Your task to perform on an android device: turn on the 24-hour format for clock Image 0: 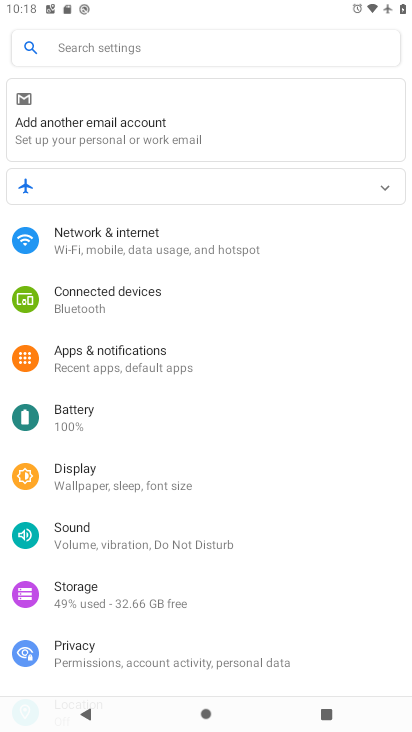
Step 0: drag from (194, 587) to (165, 237)
Your task to perform on an android device: turn on the 24-hour format for clock Image 1: 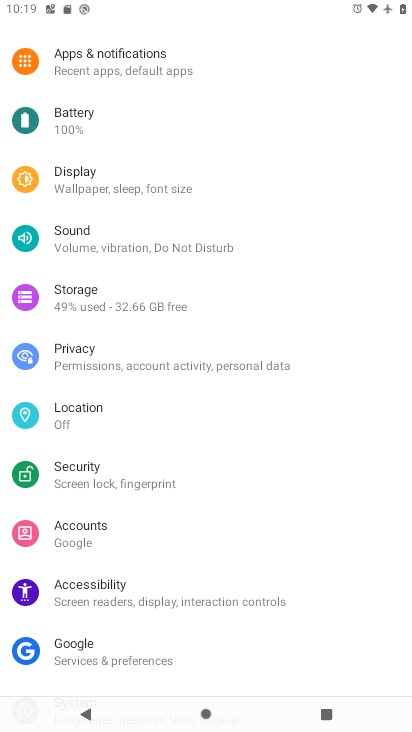
Step 1: drag from (145, 583) to (167, 225)
Your task to perform on an android device: turn on the 24-hour format for clock Image 2: 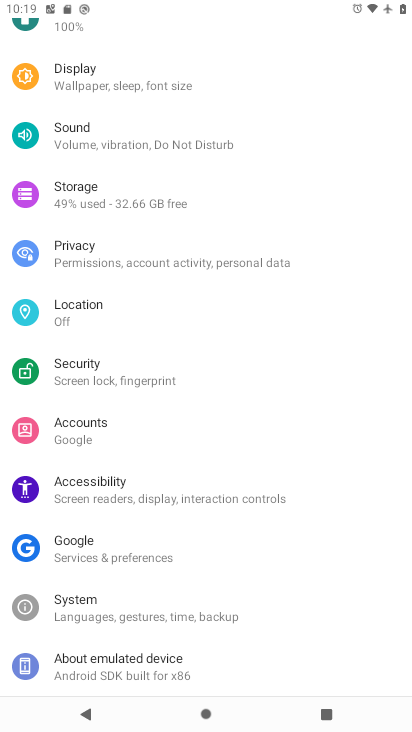
Step 2: press home button
Your task to perform on an android device: turn on the 24-hour format for clock Image 3: 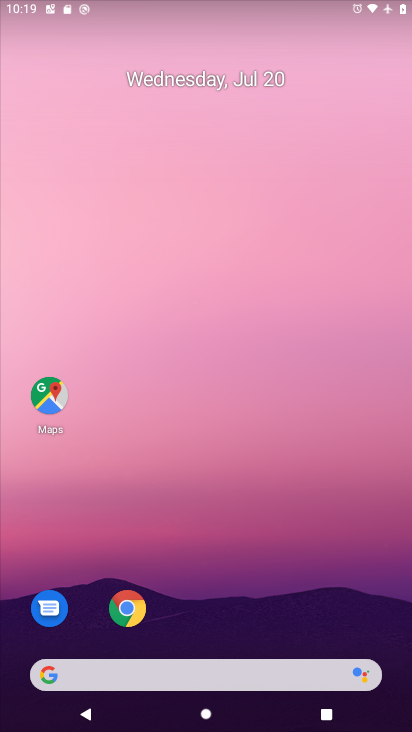
Step 3: drag from (250, 608) to (244, 172)
Your task to perform on an android device: turn on the 24-hour format for clock Image 4: 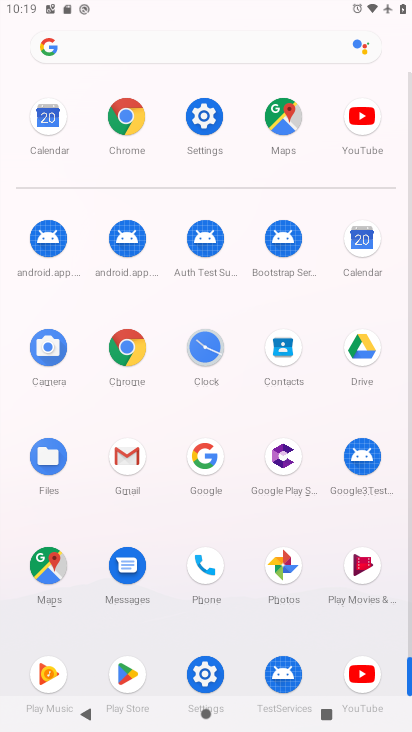
Step 4: click (202, 348)
Your task to perform on an android device: turn on the 24-hour format for clock Image 5: 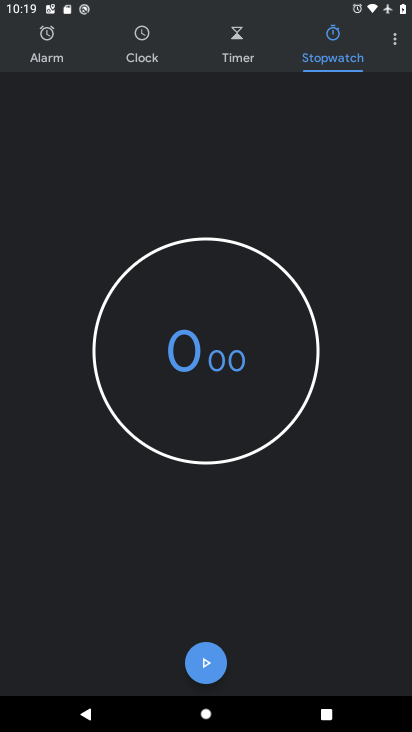
Step 5: click (393, 37)
Your task to perform on an android device: turn on the 24-hour format for clock Image 6: 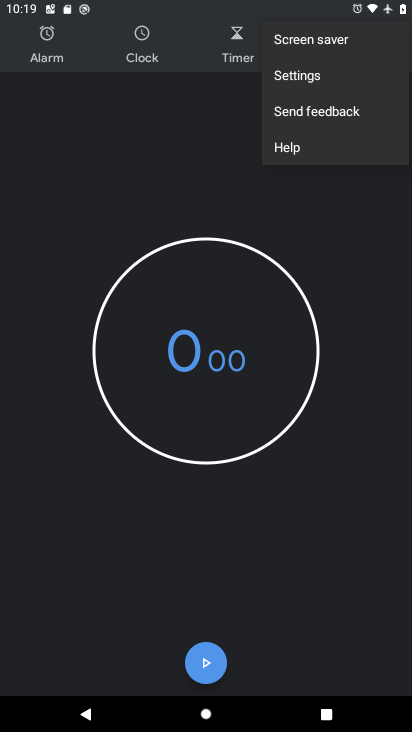
Step 6: click (320, 77)
Your task to perform on an android device: turn on the 24-hour format for clock Image 7: 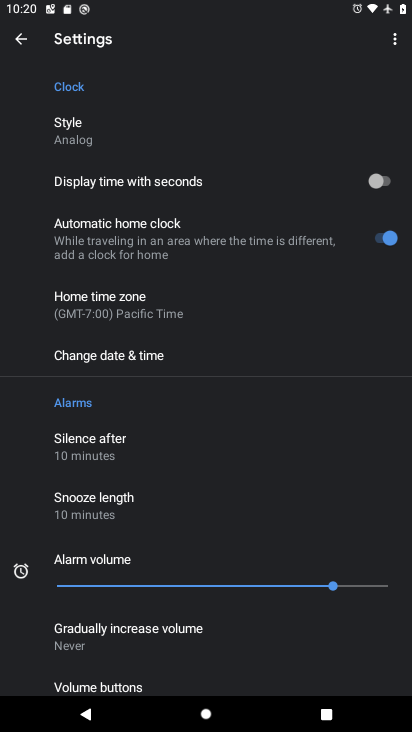
Step 7: click (154, 356)
Your task to perform on an android device: turn on the 24-hour format for clock Image 8: 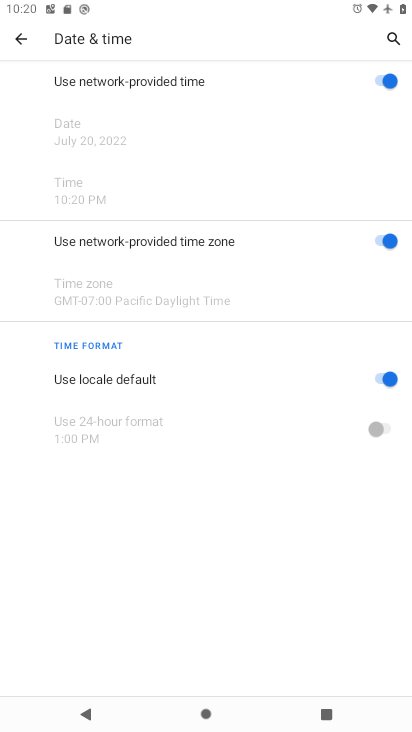
Step 8: click (32, 40)
Your task to perform on an android device: turn on the 24-hour format for clock Image 9: 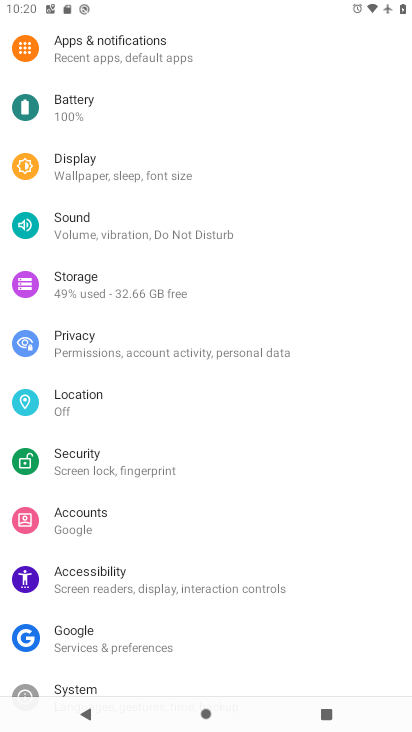
Step 9: press home button
Your task to perform on an android device: turn on the 24-hour format for clock Image 10: 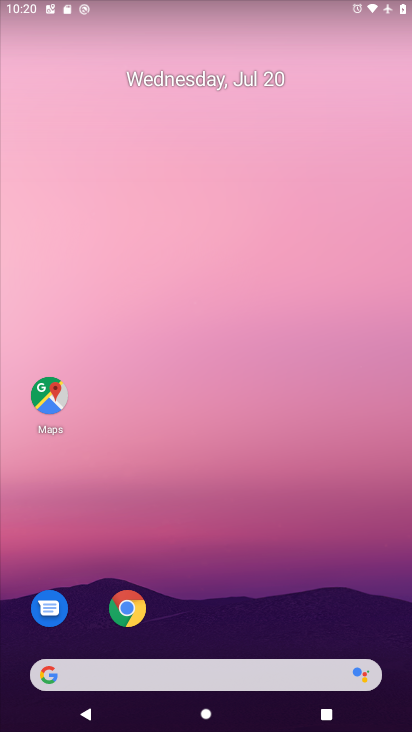
Step 10: drag from (217, 617) to (200, 95)
Your task to perform on an android device: turn on the 24-hour format for clock Image 11: 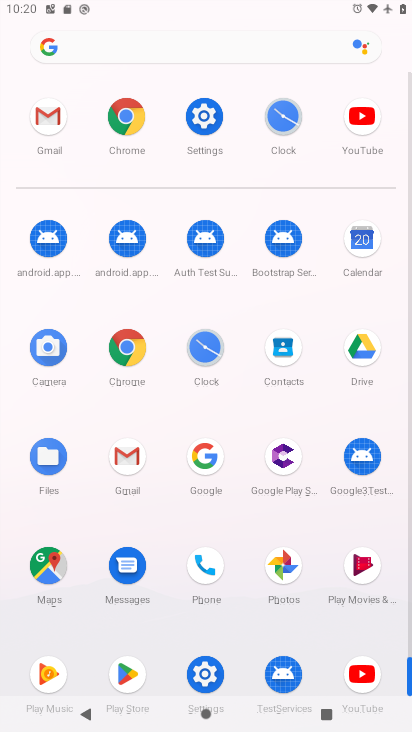
Step 11: click (214, 341)
Your task to perform on an android device: turn on the 24-hour format for clock Image 12: 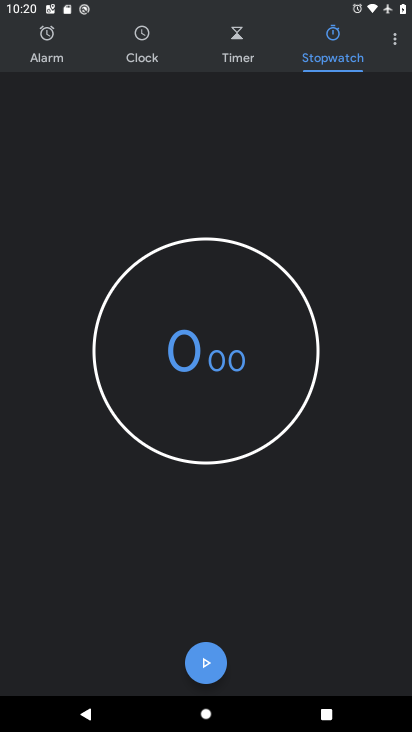
Step 12: click (396, 32)
Your task to perform on an android device: turn on the 24-hour format for clock Image 13: 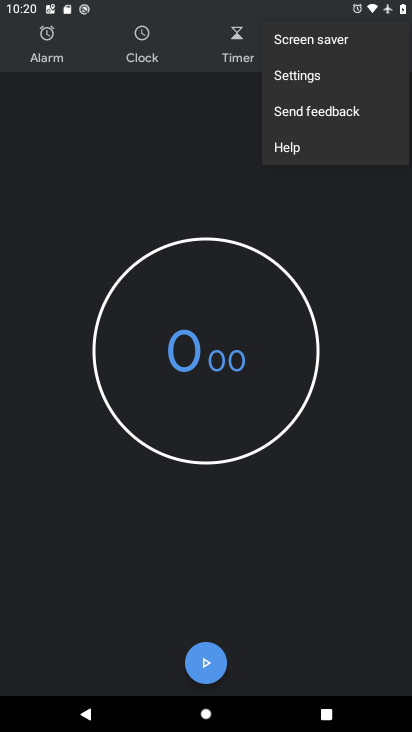
Step 13: click (309, 83)
Your task to perform on an android device: turn on the 24-hour format for clock Image 14: 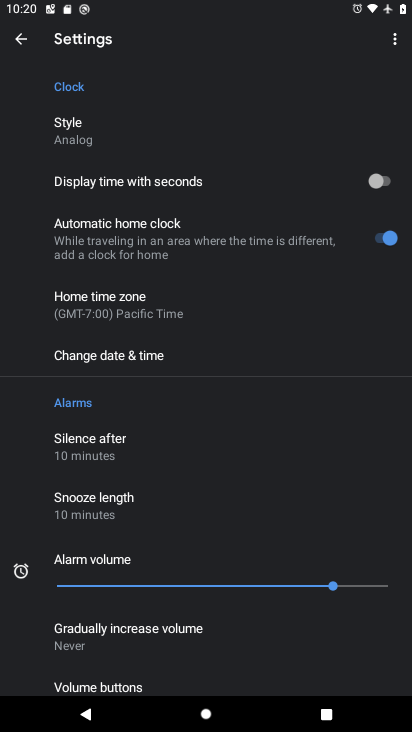
Step 14: click (115, 371)
Your task to perform on an android device: turn on the 24-hour format for clock Image 15: 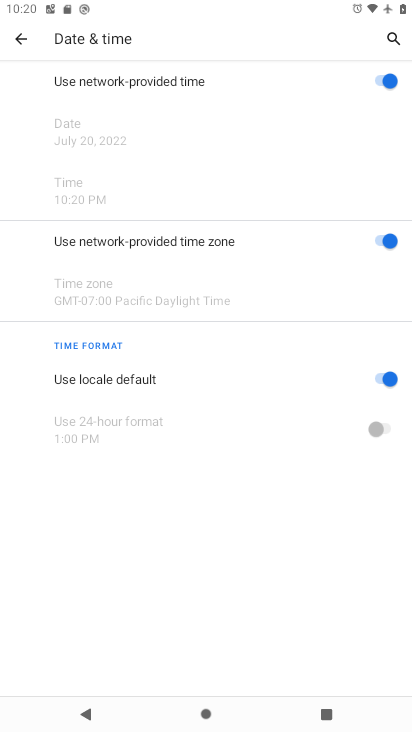
Step 15: click (377, 381)
Your task to perform on an android device: turn on the 24-hour format for clock Image 16: 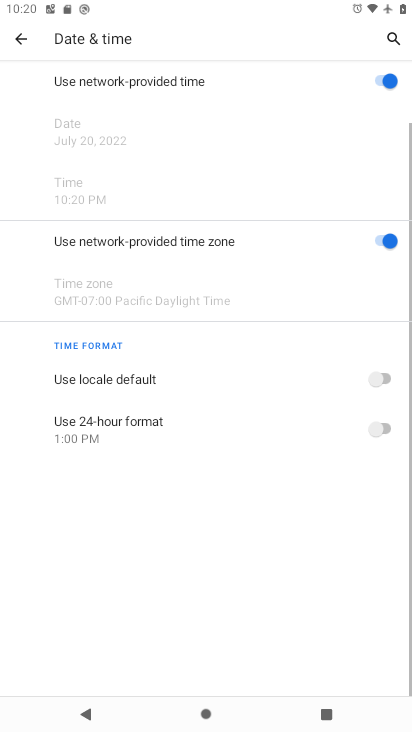
Step 16: click (373, 429)
Your task to perform on an android device: turn on the 24-hour format for clock Image 17: 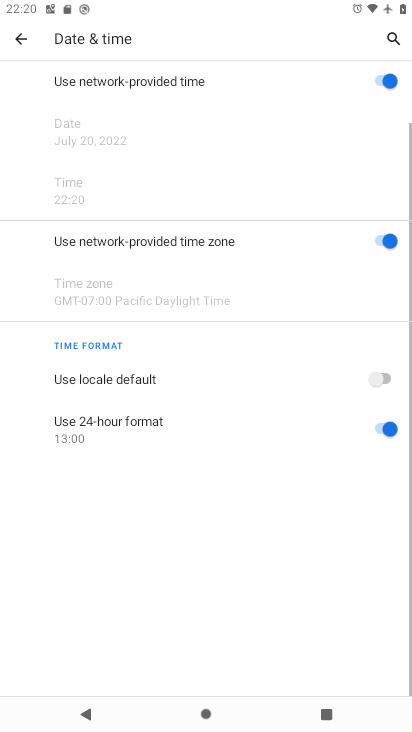
Step 17: task complete